Your task to perform on an android device: turn on airplane mode Image 0: 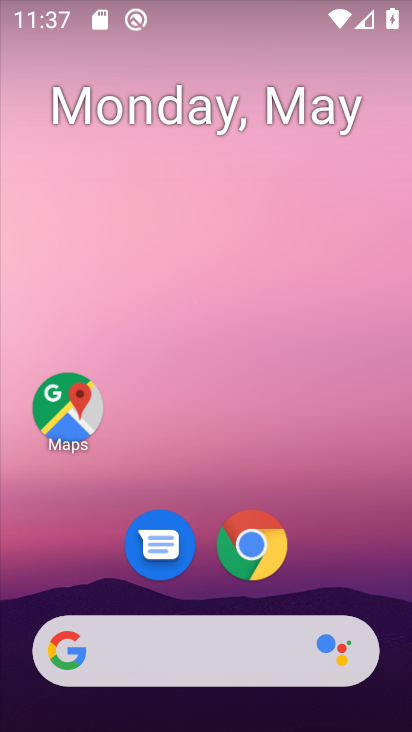
Step 0: drag from (315, 611) to (303, 13)
Your task to perform on an android device: turn on airplane mode Image 1: 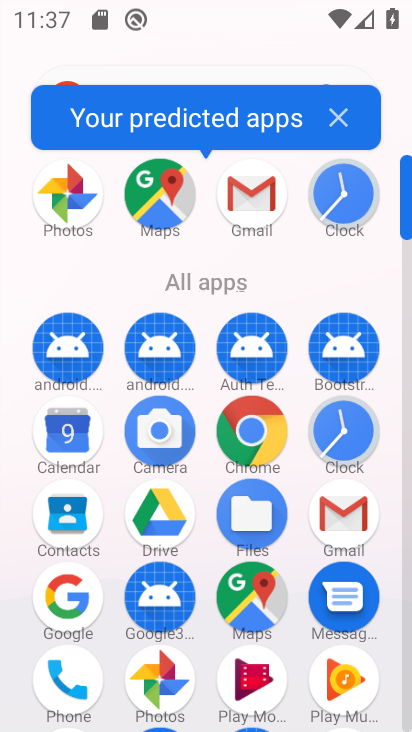
Step 1: drag from (193, 628) to (215, 170)
Your task to perform on an android device: turn on airplane mode Image 2: 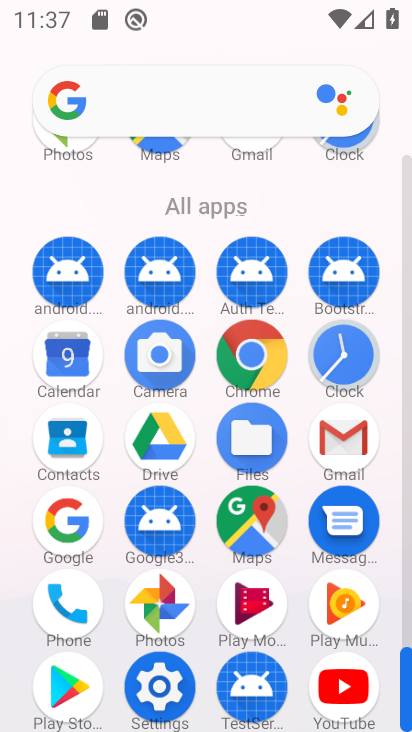
Step 2: click (161, 678)
Your task to perform on an android device: turn on airplane mode Image 3: 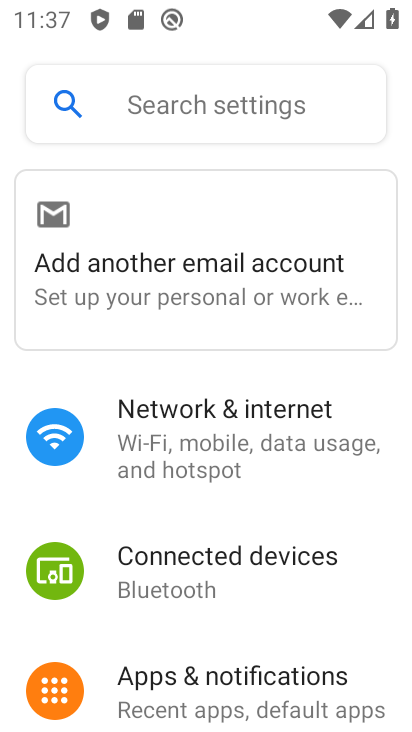
Step 3: click (215, 450)
Your task to perform on an android device: turn on airplane mode Image 4: 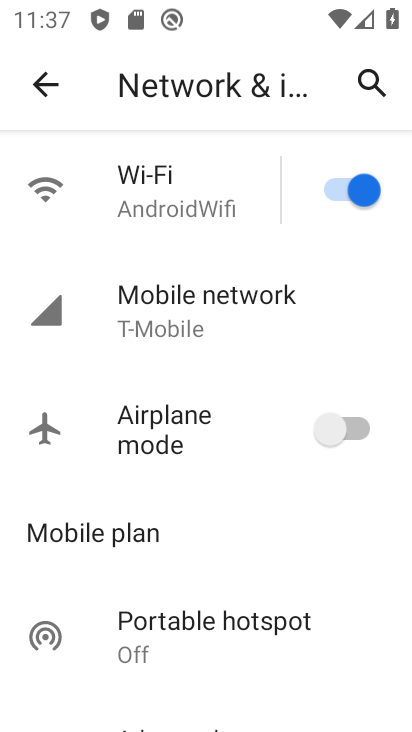
Step 4: click (342, 443)
Your task to perform on an android device: turn on airplane mode Image 5: 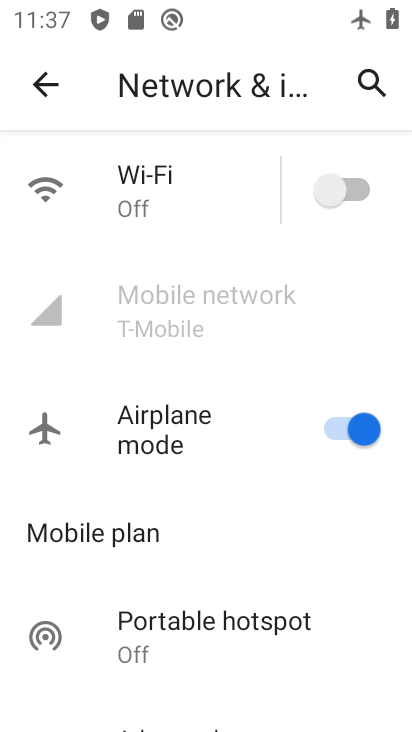
Step 5: task complete